Your task to perform on an android device: toggle wifi Image 0: 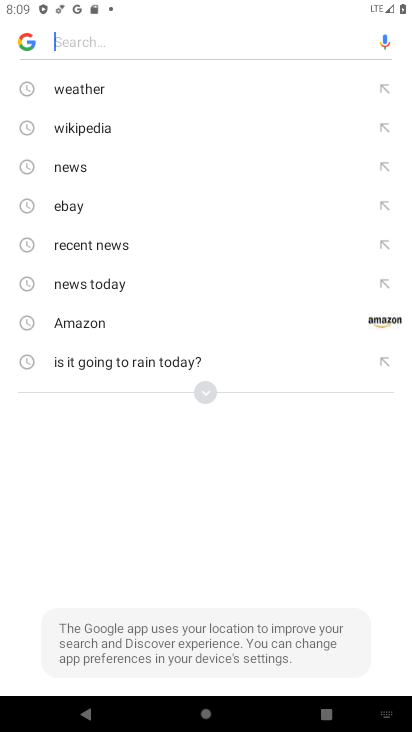
Step 0: press home button
Your task to perform on an android device: toggle wifi Image 1: 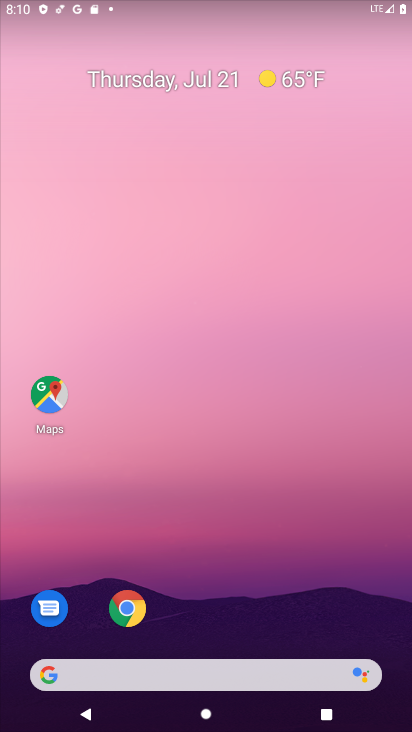
Step 1: drag from (277, 0) to (251, 486)
Your task to perform on an android device: toggle wifi Image 2: 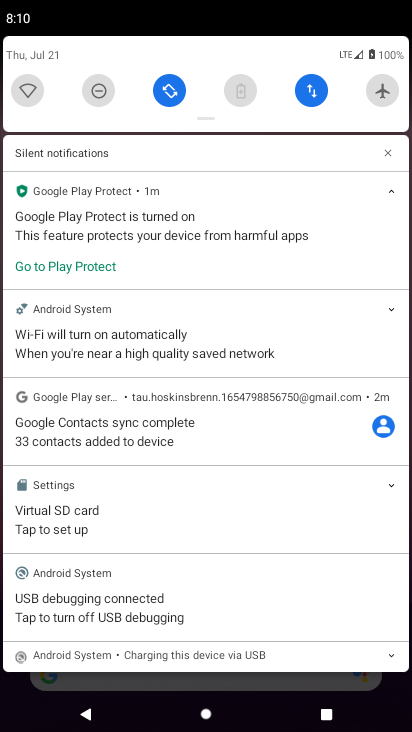
Step 2: click (35, 87)
Your task to perform on an android device: toggle wifi Image 3: 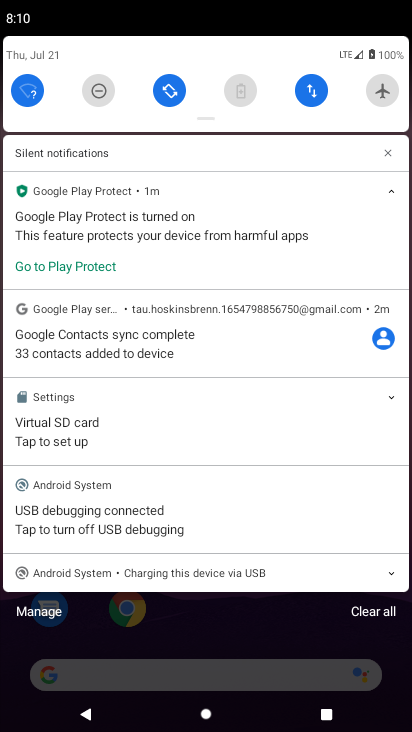
Step 3: task complete